Your task to perform on an android device: Open Amazon Image 0: 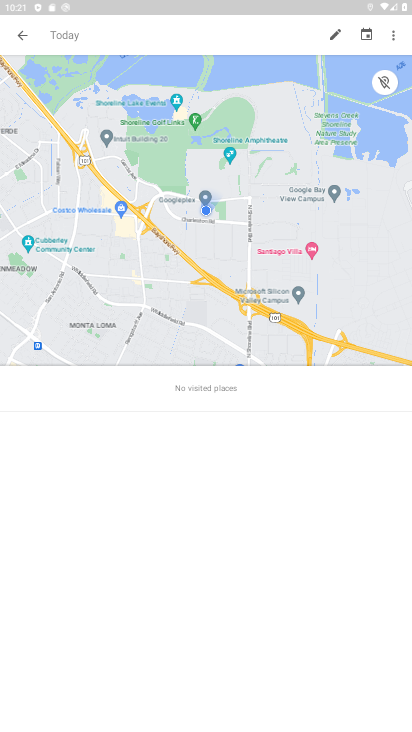
Step 0: press home button
Your task to perform on an android device: Open Amazon Image 1: 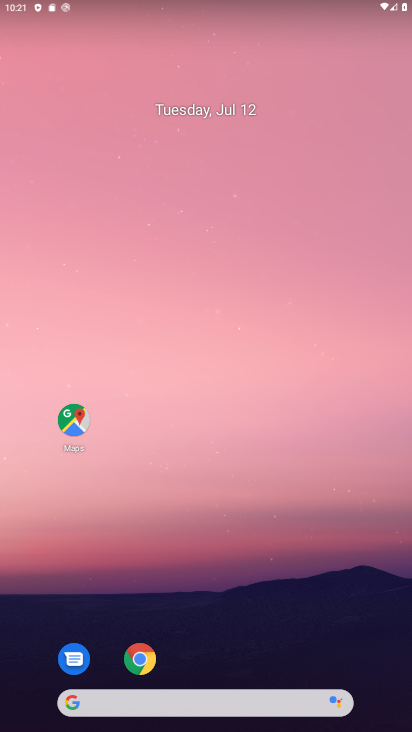
Step 1: click (143, 669)
Your task to perform on an android device: Open Amazon Image 2: 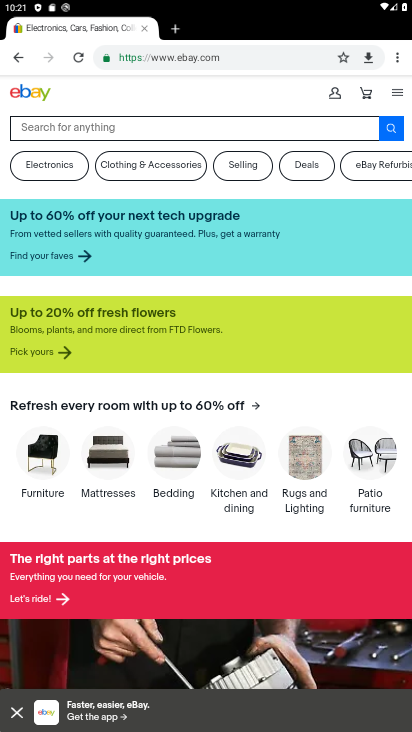
Step 2: click (23, 62)
Your task to perform on an android device: Open Amazon Image 3: 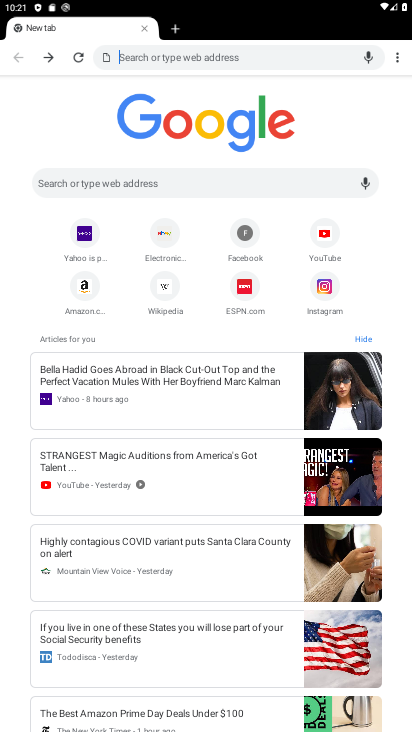
Step 3: click (84, 289)
Your task to perform on an android device: Open Amazon Image 4: 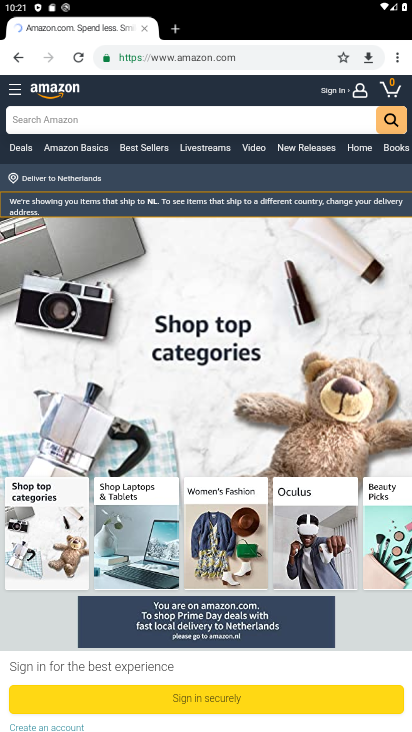
Step 4: task complete